Your task to perform on an android device: Search for pizza restaurants on Maps Image 0: 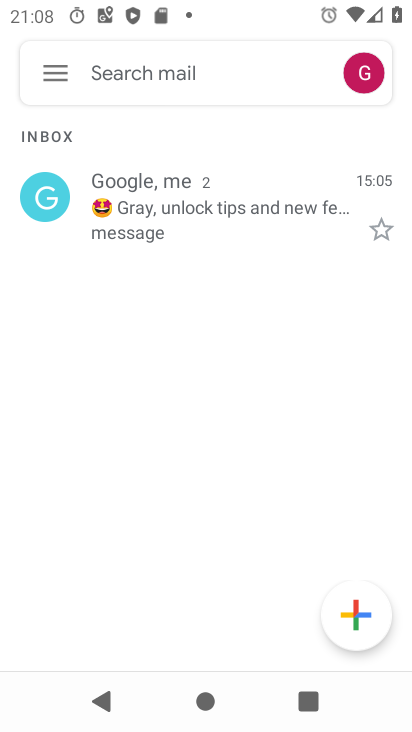
Step 0: press home button
Your task to perform on an android device: Search for pizza restaurants on Maps Image 1: 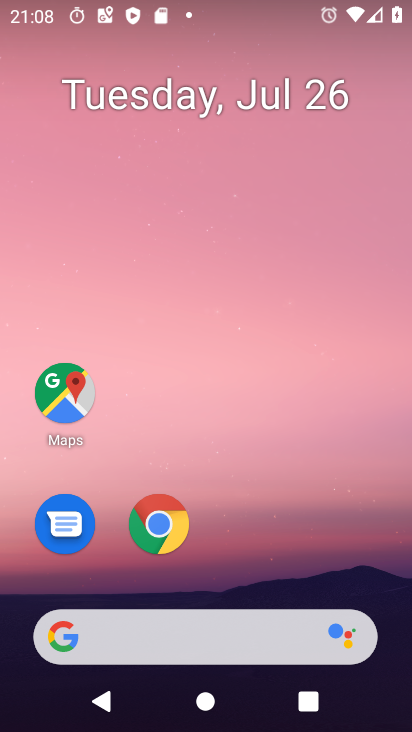
Step 1: click (65, 389)
Your task to perform on an android device: Search for pizza restaurants on Maps Image 2: 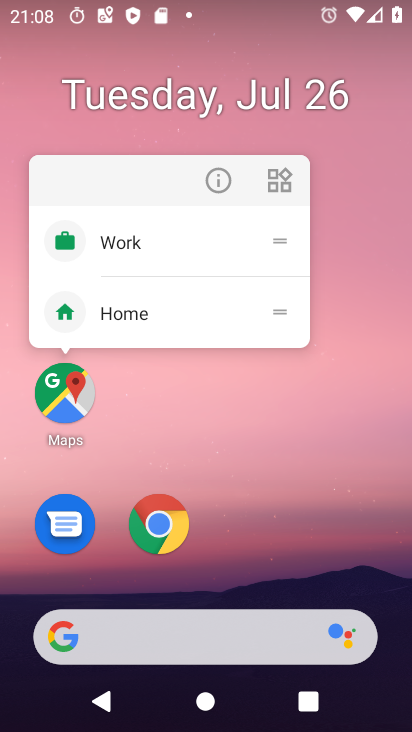
Step 2: click (65, 390)
Your task to perform on an android device: Search for pizza restaurants on Maps Image 3: 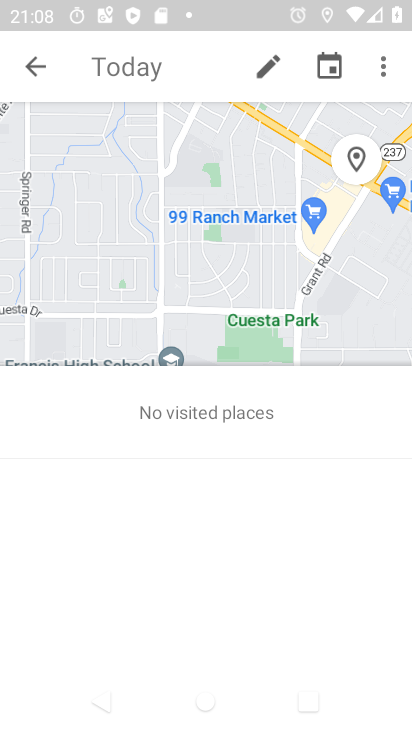
Step 3: click (37, 57)
Your task to perform on an android device: Search for pizza restaurants on Maps Image 4: 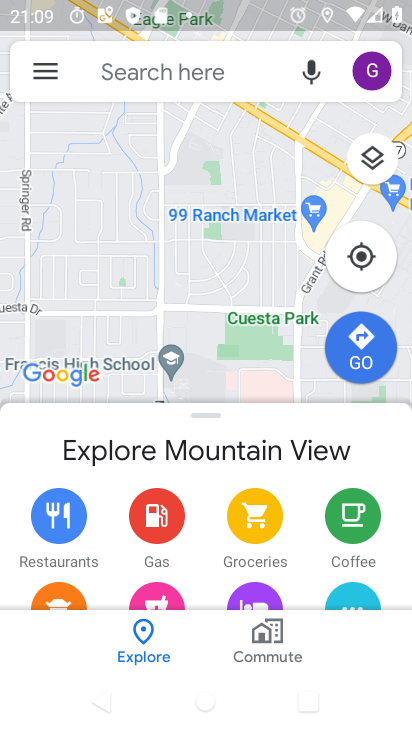
Step 4: click (121, 58)
Your task to perform on an android device: Search for pizza restaurants on Maps Image 5: 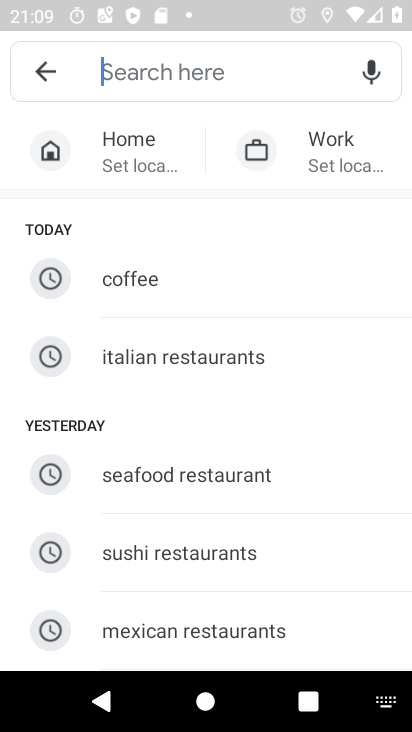
Step 5: drag from (217, 568) to (242, 167)
Your task to perform on an android device: Search for pizza restaurants on Maps Image 6: 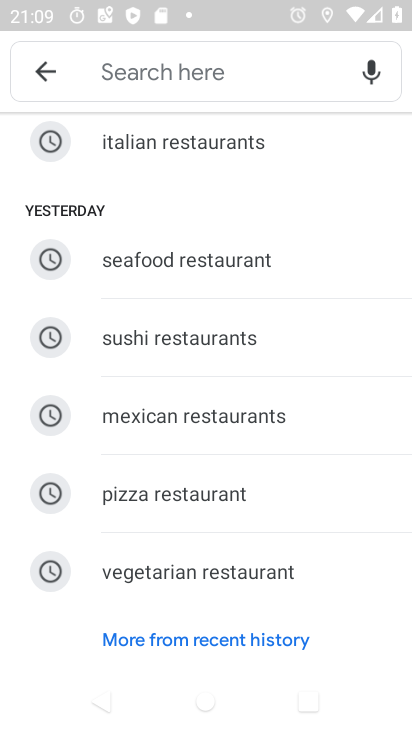
Step 6: click (210, 483)
Your task to perform on an android device: Search for pizza restaurants on Maps Image 7: 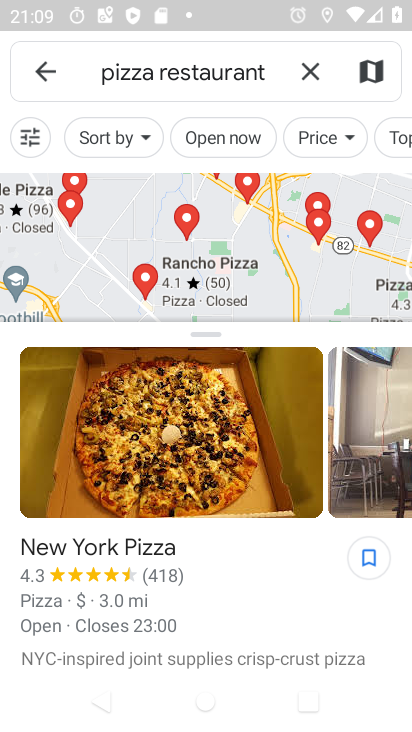
Step 7: task complete